Your task to perform on an android device: turn off improve location accuracy Image 0: 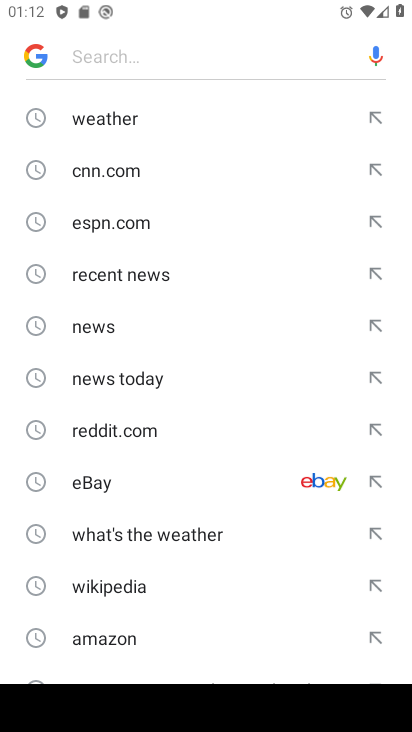
Step 0: press home button
Your task to perform on an android device: turn off improve location accuracy Image 1: 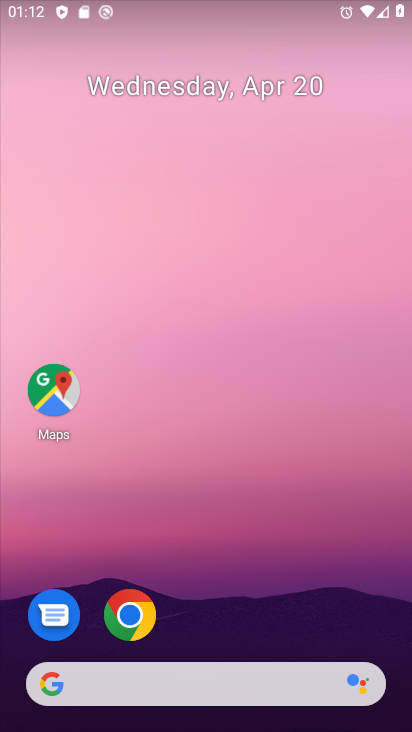
Step 1: drag from (375, 302) to (388, 75)
Your task to perform on an android device: turn off improve location accuracy Image 2: 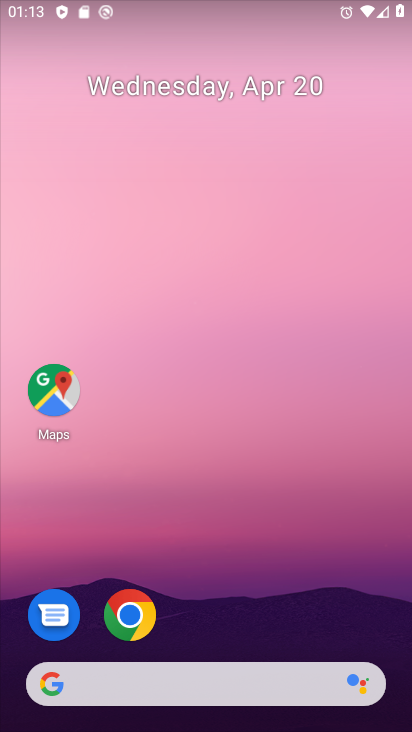
Step 2: drag from (374, 500) to (361, 173)
Your task to perform on an android device: turn off improve location accuracy Image 3: 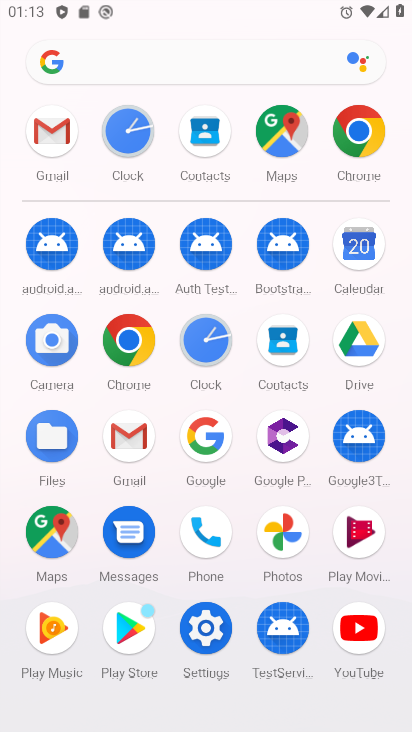
Step 3: click (197, 615)
Your task to perform on an android device: turn off improve location accuracy Image 4: 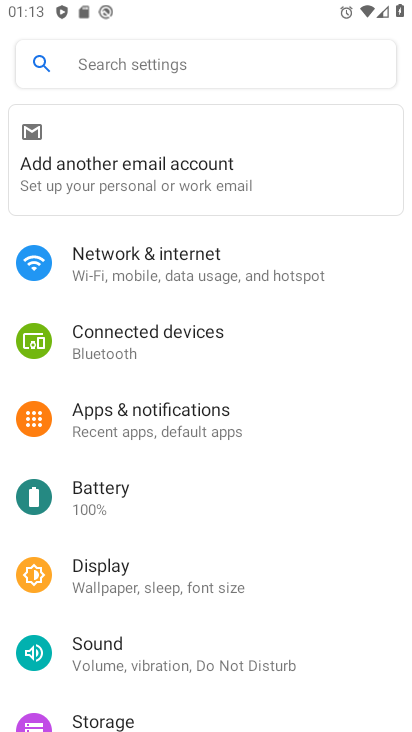
Step 4: drag from (345, 661) to (362, 188)
Your task to perform on an android device: turn off improve location accuracy Image 5: 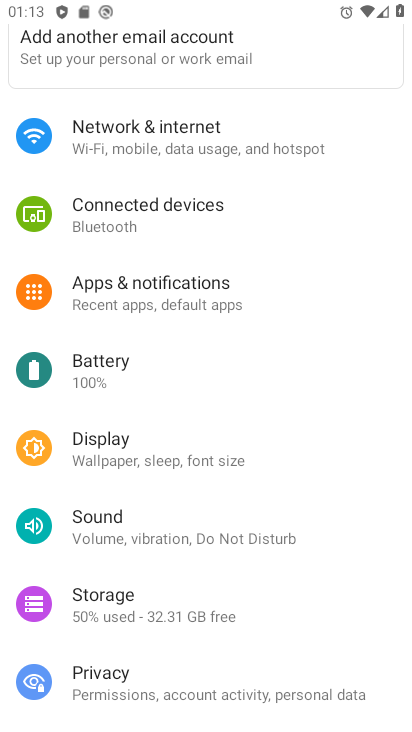
Step 5: drag from (324, 661) to (335, 209)
Your task to perform on an android device: turn off improve location accuracy Image 6: 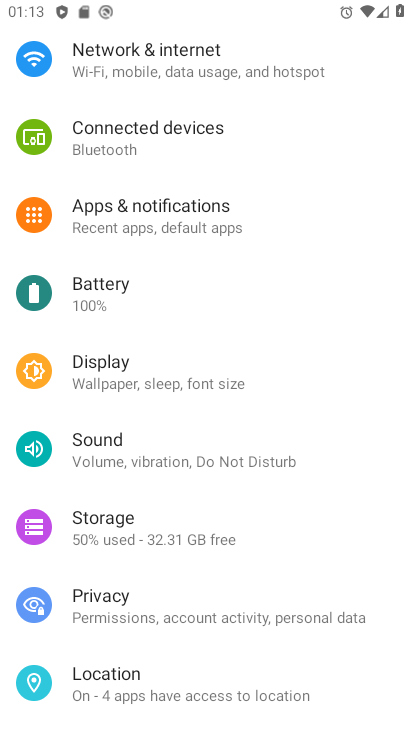
Step 6: click (112, 673)
Your task to perform on an android device: turn off improve location accuracy Image 7: 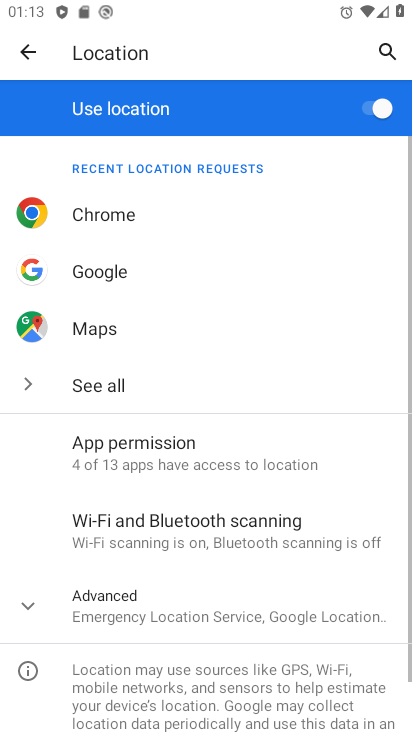
Step 7: click (44, 601)
Your task to perform on an android device: turn off improve location accuracy Image 8: 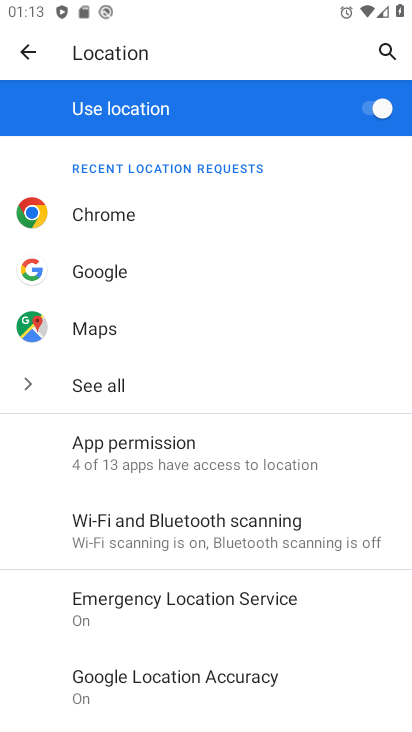
Step 8: drag from (349, 578) to (349, 188)
Your task to perform on an android device: turn off improve location accuracy Image 9: 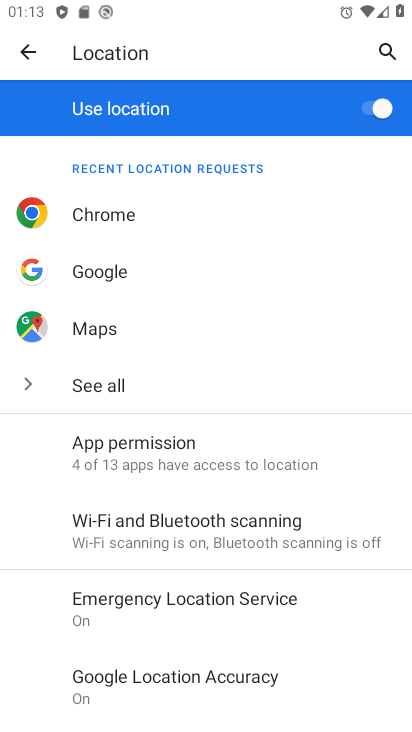
Step 9: drag from (376, 469) to (362, 282)
Your task to perform on an android device: turn off improve location accuracy Image 10: 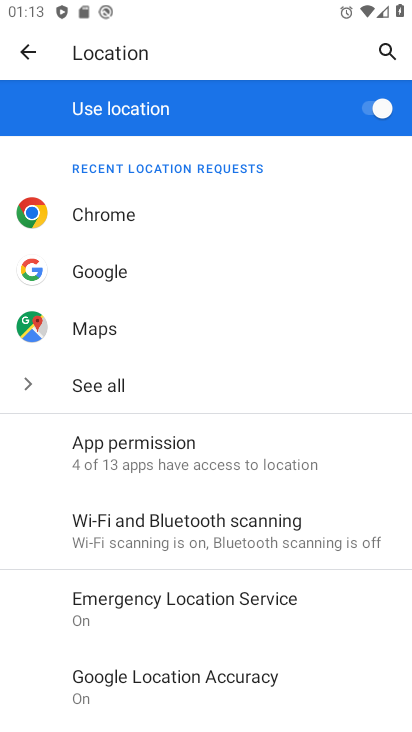
Step 10: drag from (349, 564) to (340, 303)
Your task to perform on an android device: turn off improve location accuracy Image 11: 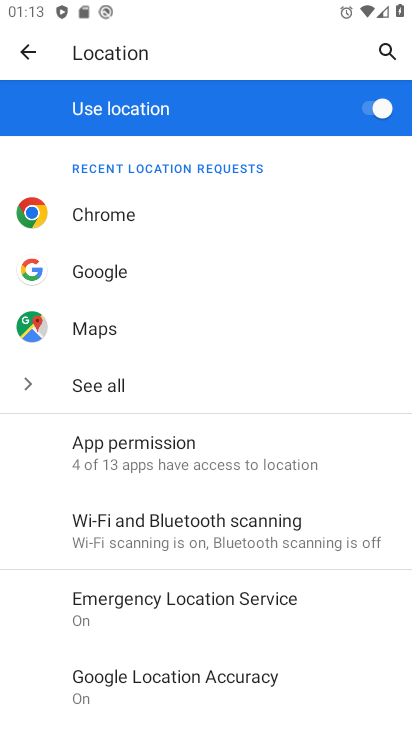
Step 11: drag from (336, 402) to (346, 205)
Your task to perform on an android device: turn off improve location accuracy Image 12: 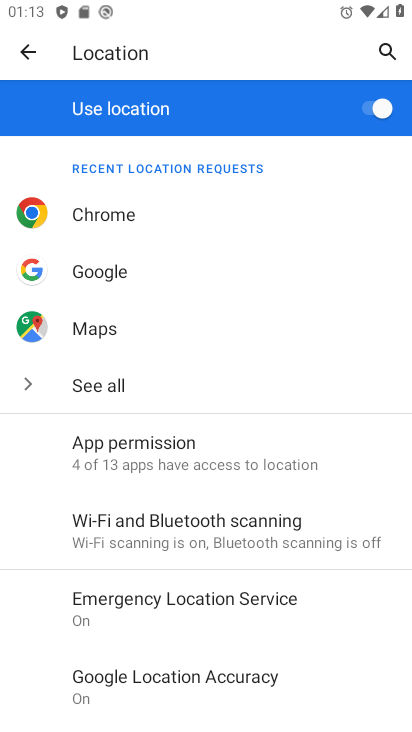
Step 12: drag from (380, 652) to (395, 269)
Your task to perform on an android device: turn off improve location accuracy Image 13: 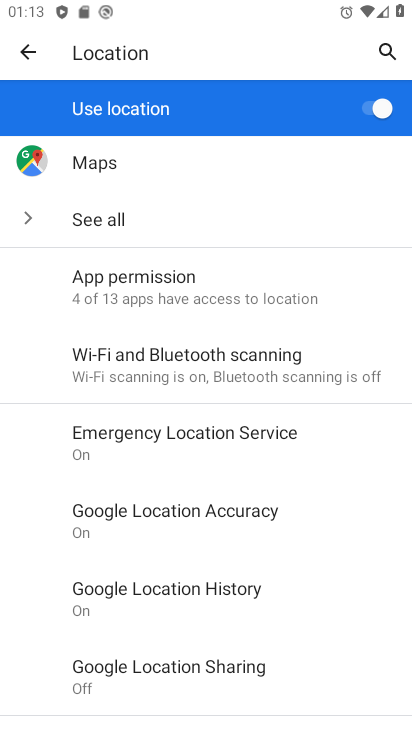
Step 13: drag from (376, 641) to (362, 314)
Your task to perform on an android device: turn off improve location accuracy Image 14: 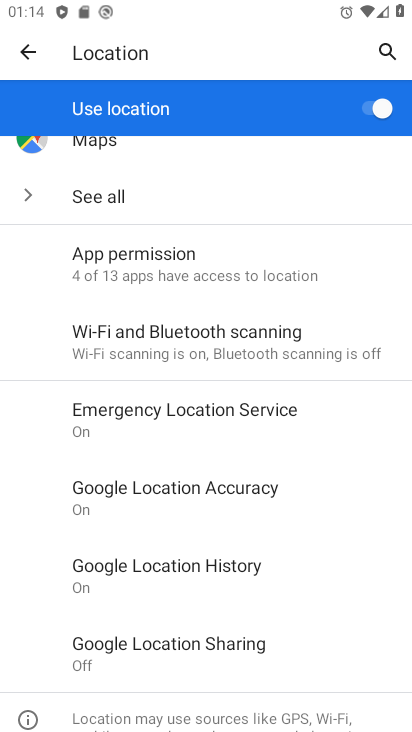
Step 14: click (132, 492)
Your task to perform on an android device: turn off improve location accuracy Image 15: 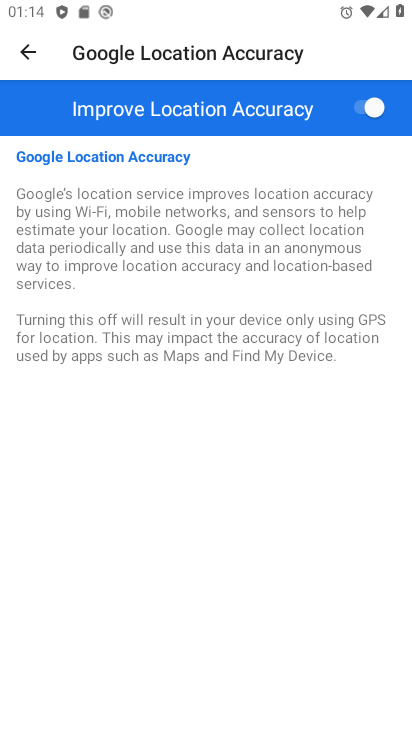
Step 15: click (360, 105)
Your task to perform on an android device: turn off improve location accuracy Image 16: 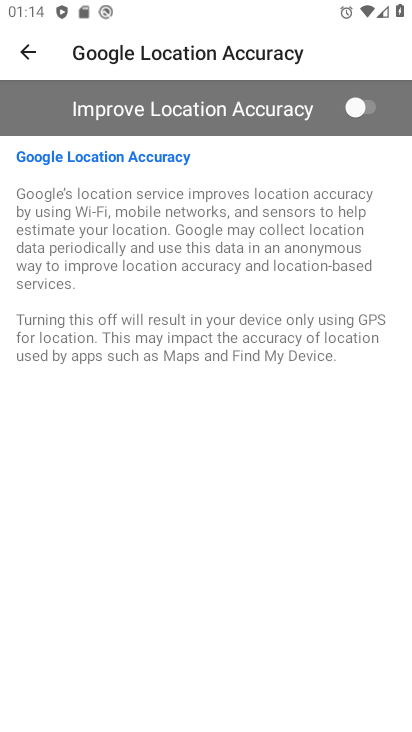
Step 16: task complete